Your task to perform on an android device: Show me productivity apps on the Play Store Image 0: 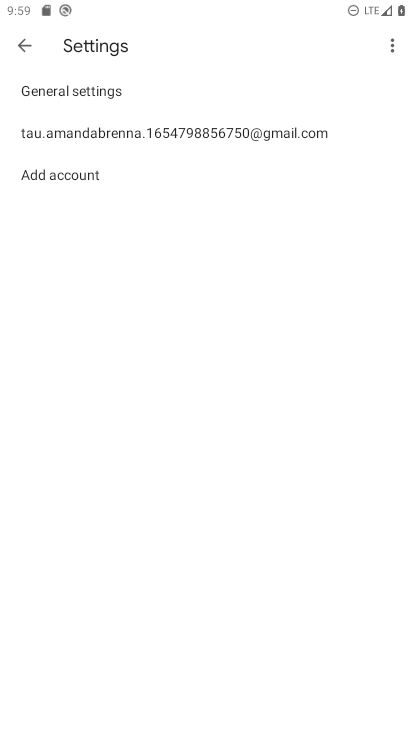
Step 0: press home button
Your task to perform on an android device: Show me productivity apps on the Play Store Image 1: 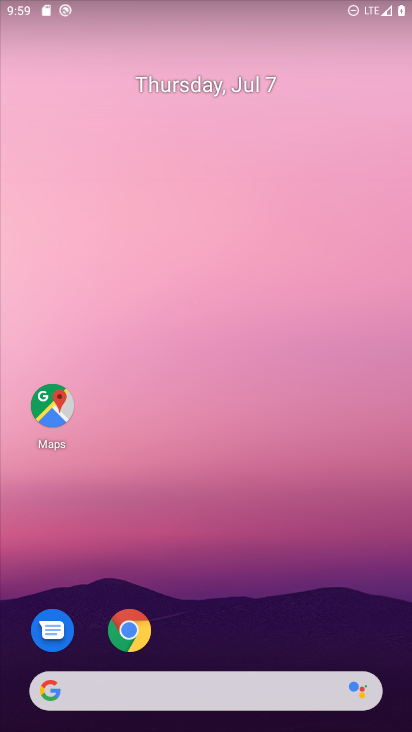
Step 1: drag from (212, 631) to (164, 177)
Your task to perform on an android device: Show me productivity apps on the Play Store Image 2: 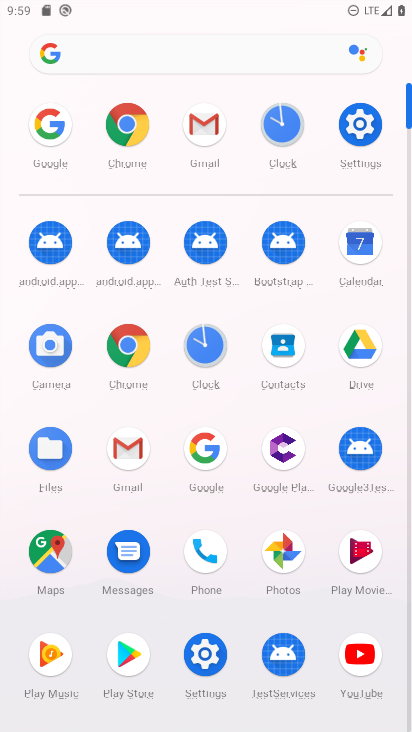
Step 2: click (122, 665)
Your task to perform on an android device: Show me productivity apps on the Play Store Image 3: 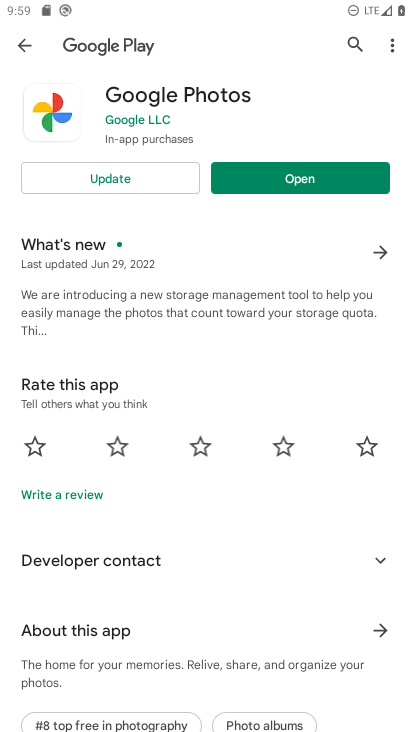
Step 3: click (32, 42)
Your task to perform on an android device: Show me productivity apps on the Play Store Image 4: 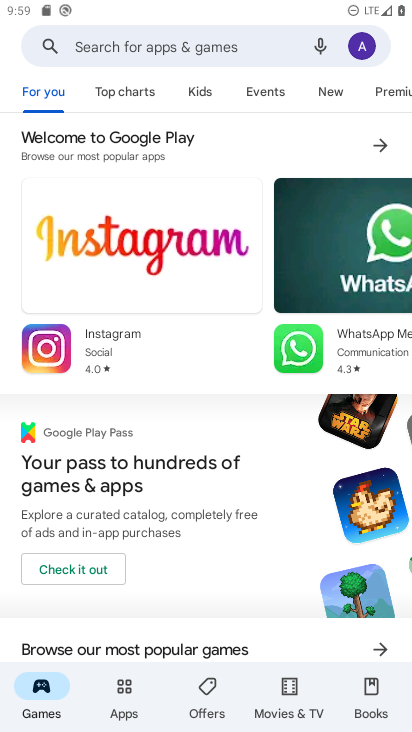
Step 4: click (126, 687)
Your task to perform on an android device: Show me productivity apps on the Play Store Image 5: 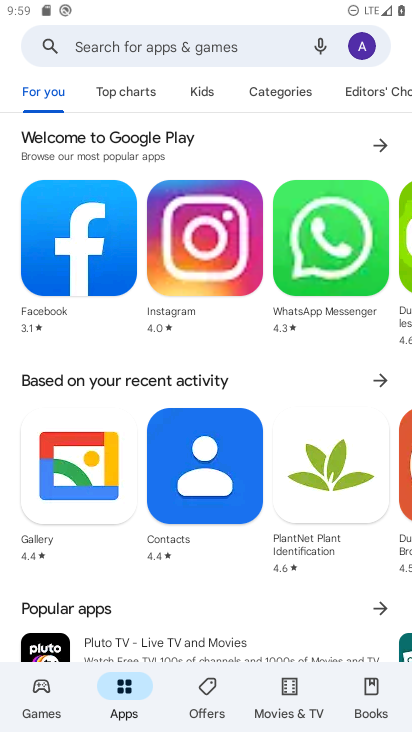
Step 5: drag from (333, 92) to (114, 95)
Your task to perform on an android device: Show me productivity apps on the Play Store Image 6: 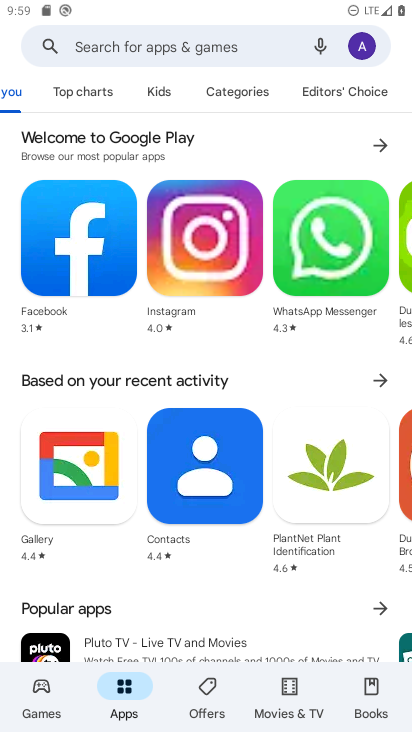
Step 6: click (236, 95)
Your task to perform on an android device: Show me productivity apps on the Play Store Image 7: 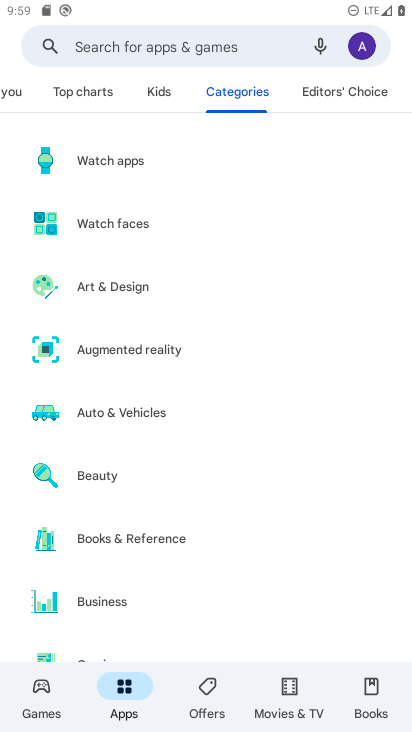
Step 7: drag from (223, 619) to (175, 100)
Your task to perform on an android device: Show me productivity apps on the Play Store Image 8: 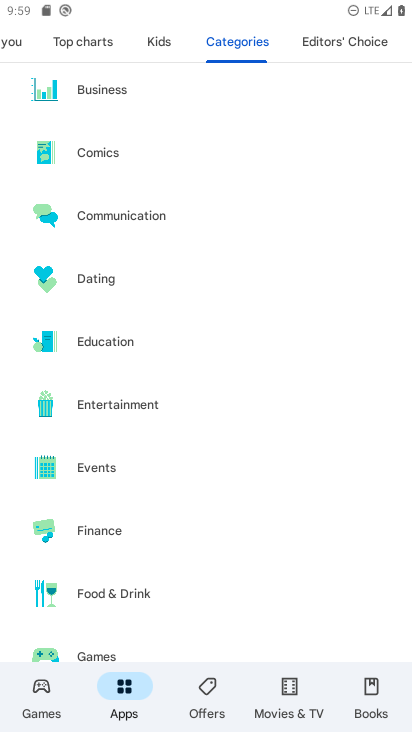
Step 8: drag from (188, 611) to (167, 129)
Your task to perform on an android device: Show me productivity apps on the Play Store Image 9: 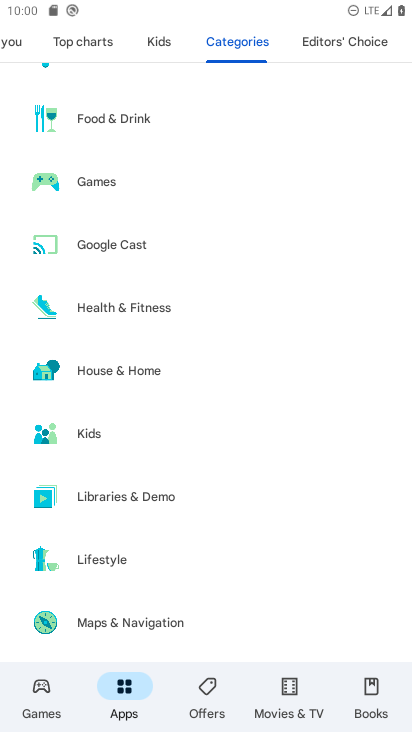
Step 9: drag from (164, 539) to (164, 124)
Your task to perform on an android device: Show me productivity apps on the Play Store Image 10: 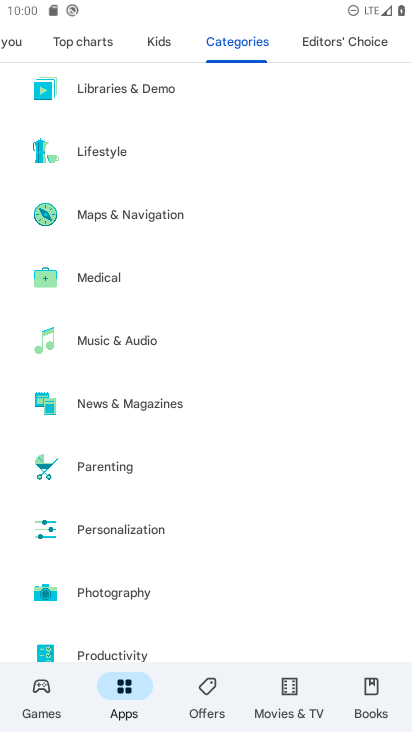
Step 10: drag from (177, 612) to (174, 368)
Your task to perform on an android device: Show me productivity apps on the Play Store Image 11: 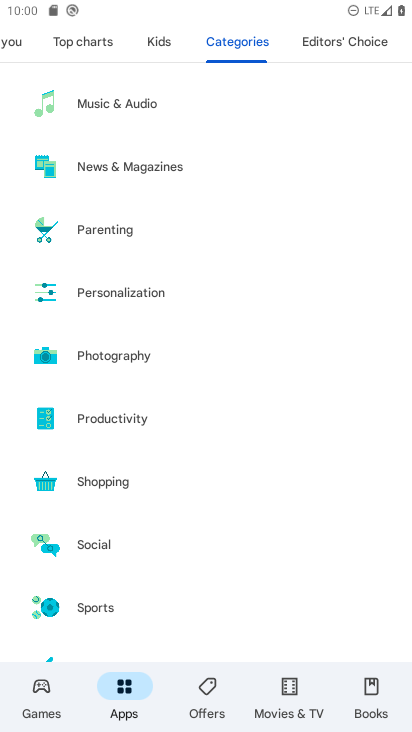
Step 11: click (169, 418)
Your task to perform on an android device: Show me productivity apps on the Play Store Image 12: 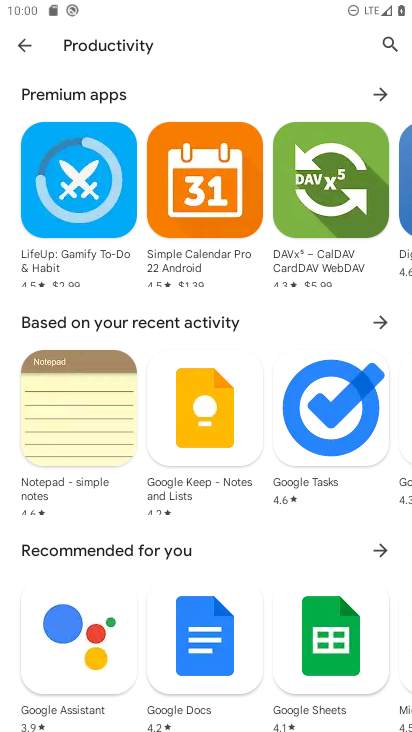
Step 12: task complete